Your task to perform on an android device: toggle location history Image 0: 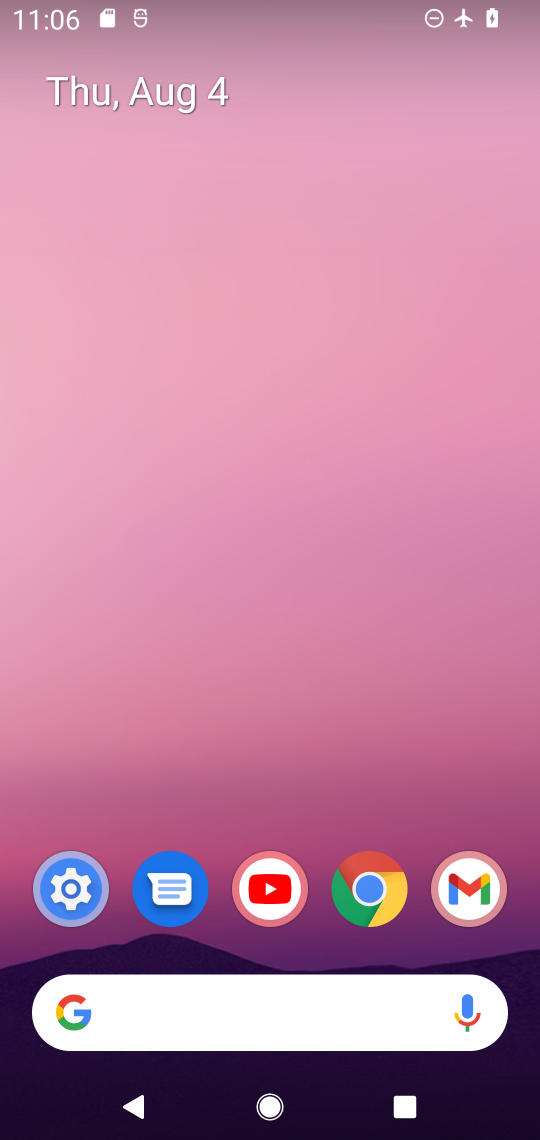
Step 0: press home button
Your task to perform on an android device: toggle location history Image 1: 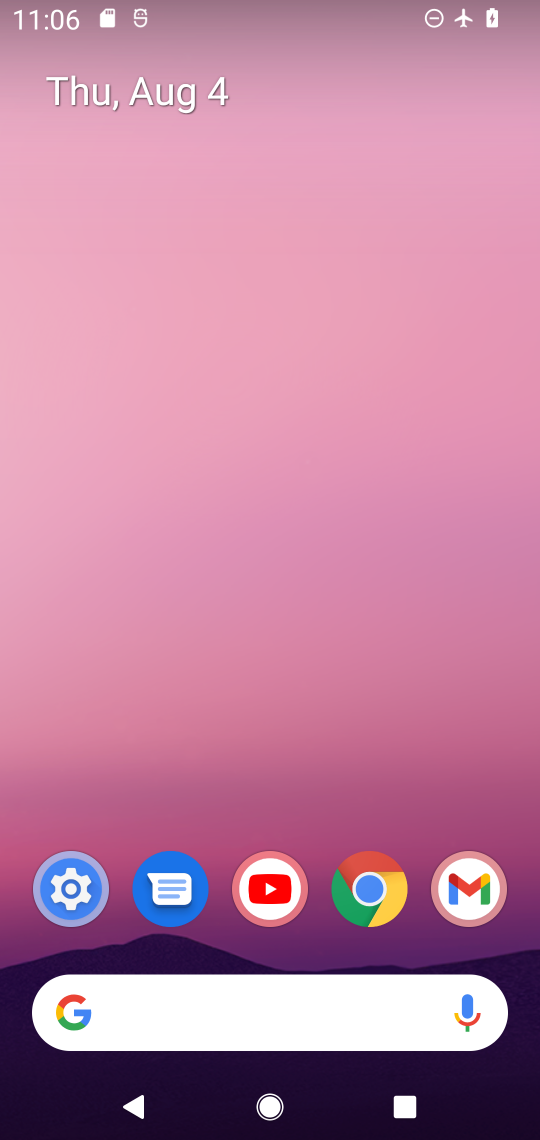
Step 1: drag from (424, 772) to (413, 192)
Your task to perform on an android device: toggle location history Image 2: 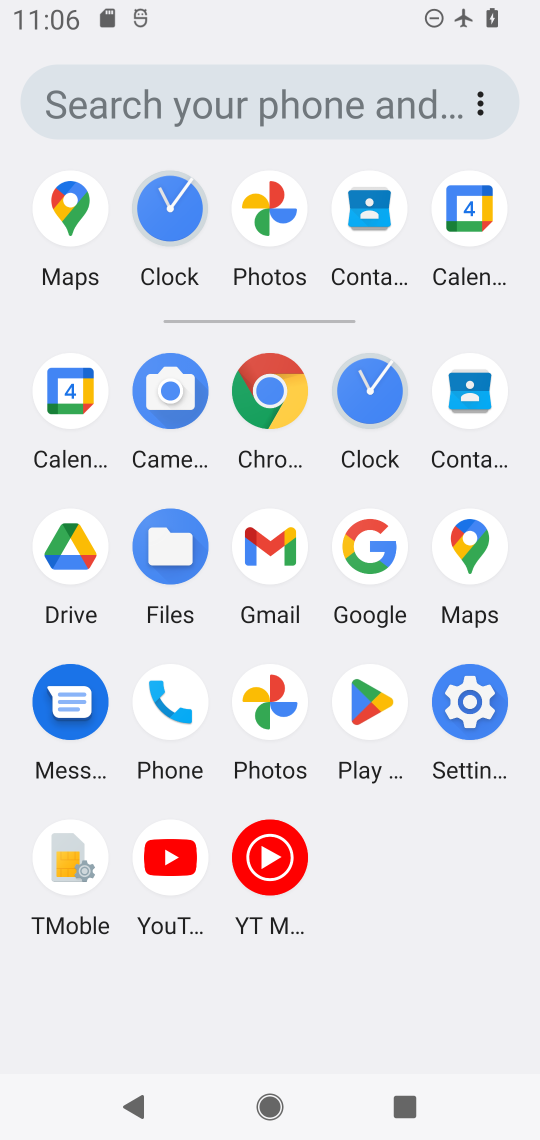
Step 2: click (469, 710)
Your task to perform on an android device: toggle location history Image 3: 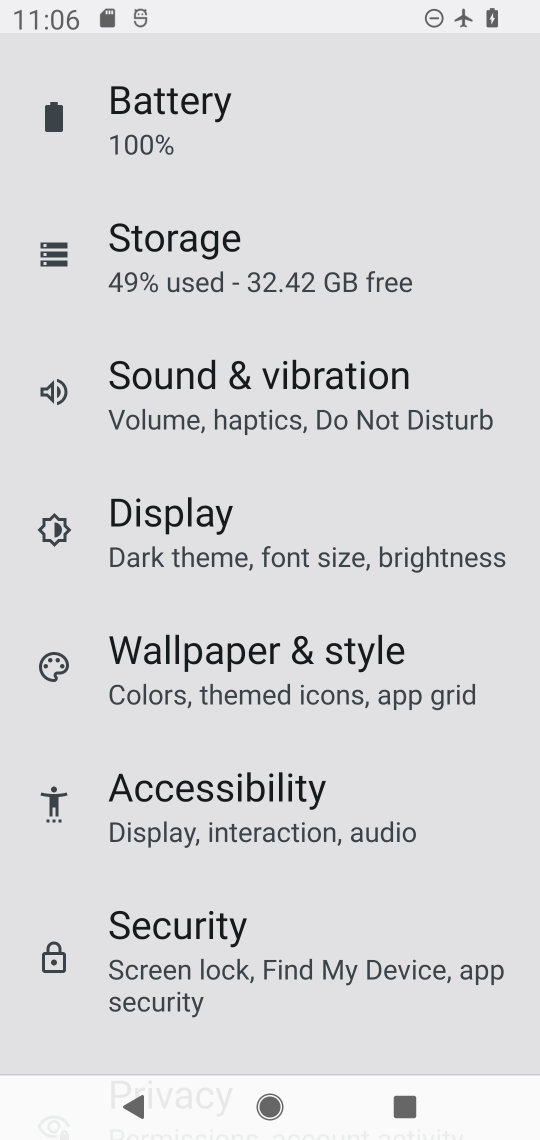
Step 3: drag from (469, 874) to (471, 655)
Your task to perform on an android device: toggle location history Image 4: 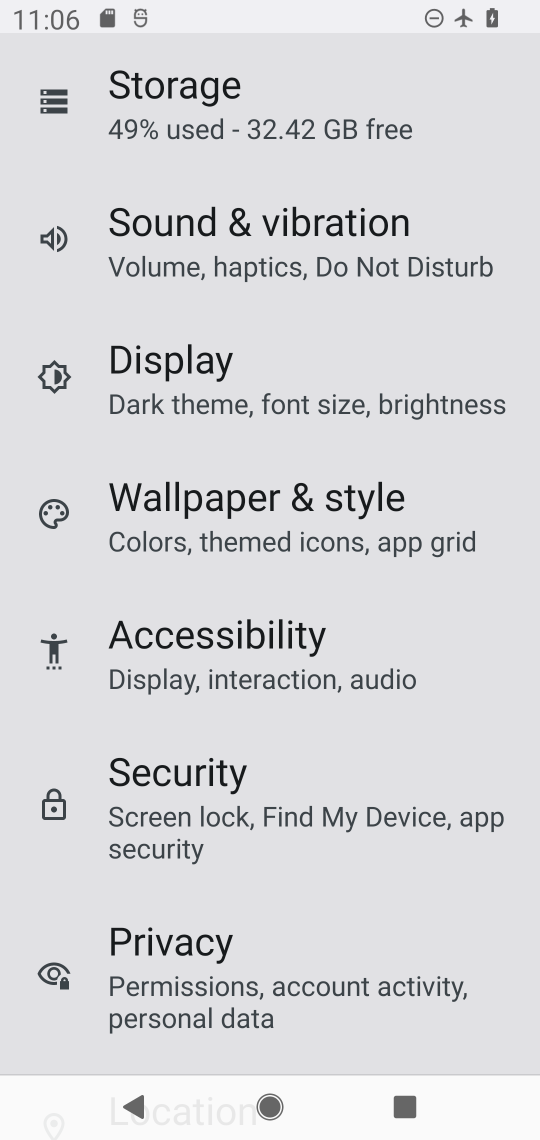
Step 4: drag from (441, 899) to (464, 616)
Your task to perform on an android device: toggle location history Image 5: 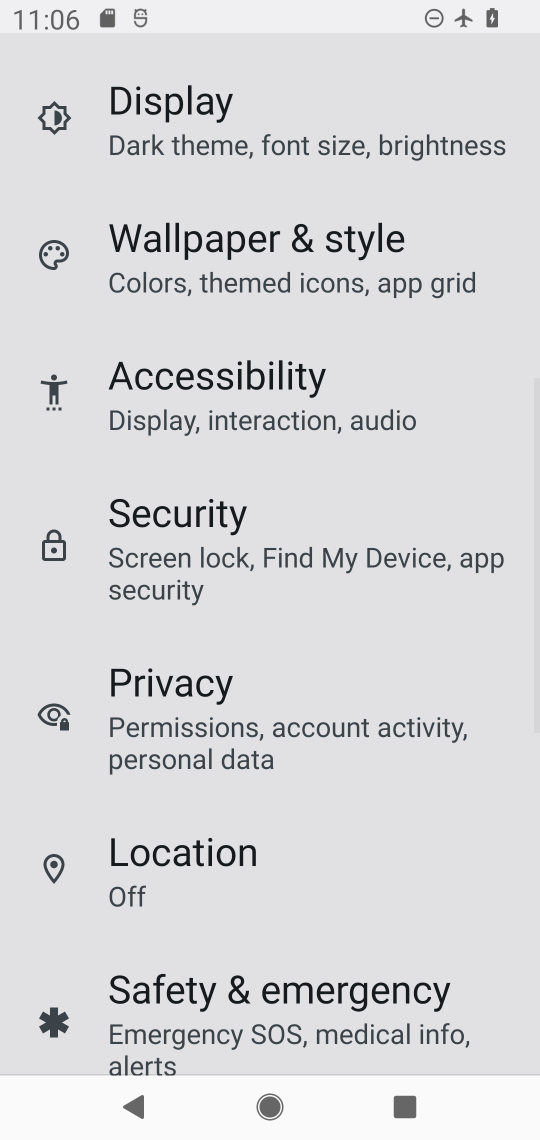
Step 5: drag from (461, 866) to (461, 638)
Your task to perform on an android device: toggle location history Image 6: 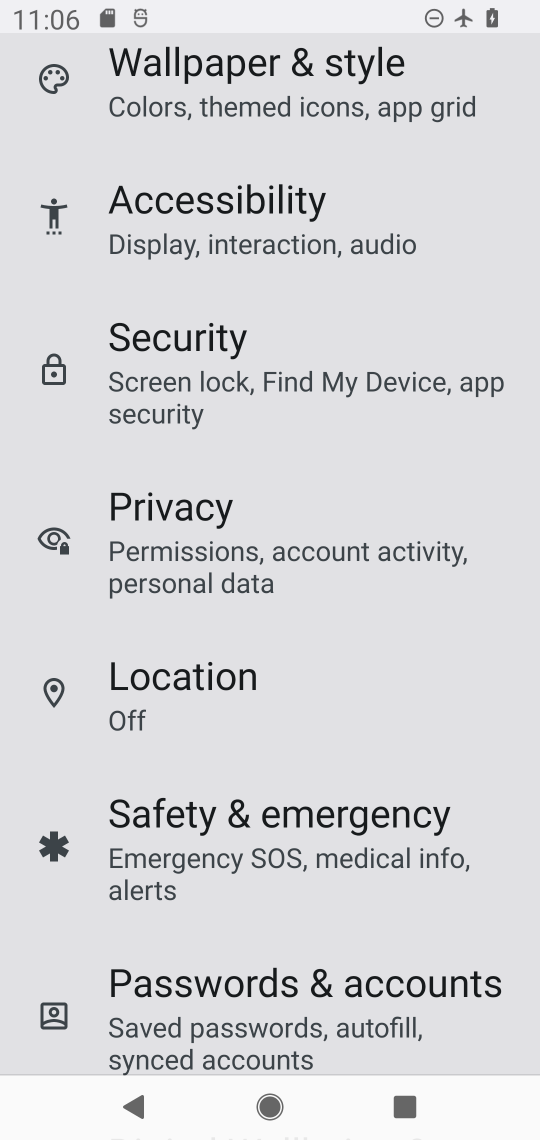
Step 6: click (296, 704)
Your task to perform on an android device: toggle location history Image 7: 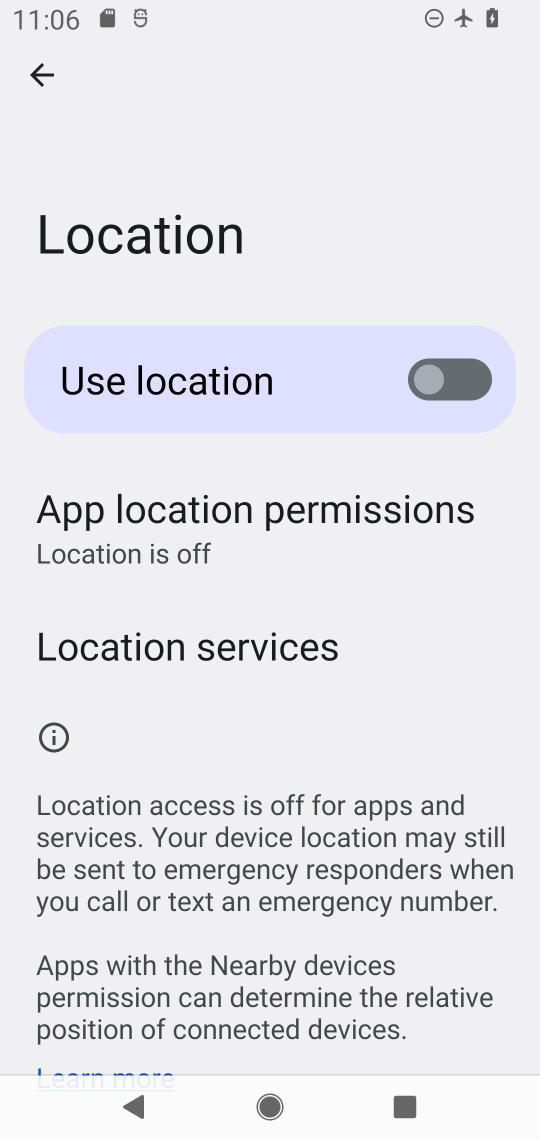
Step 7: click (299, 665)
Your task to perform on an android device: toggle location history Image 8: 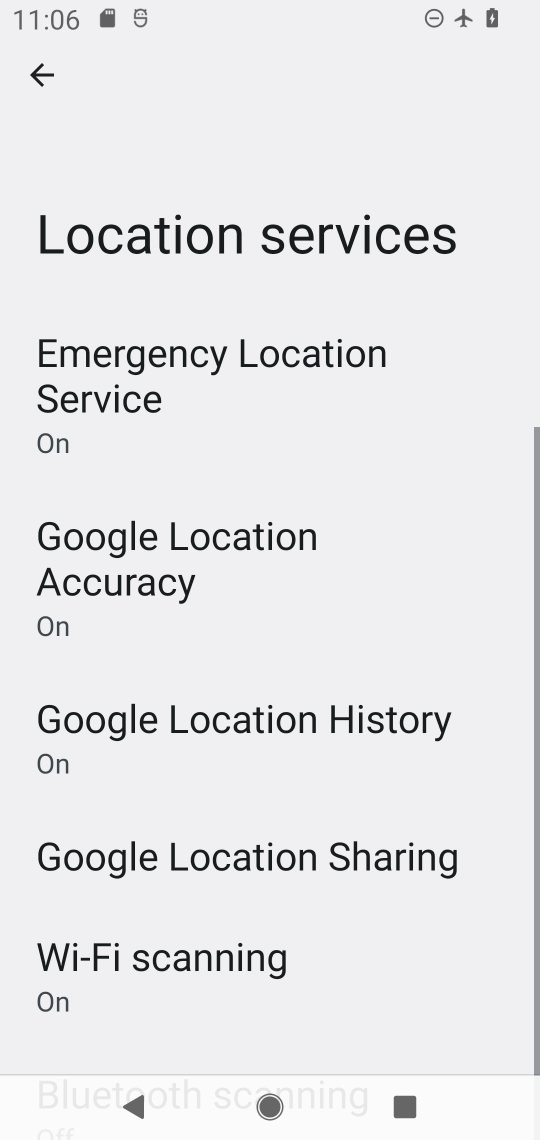
Step 8: drag from (349, 848) to (361, 644)
Your task to perform on an android device: toggle location history Image 9: 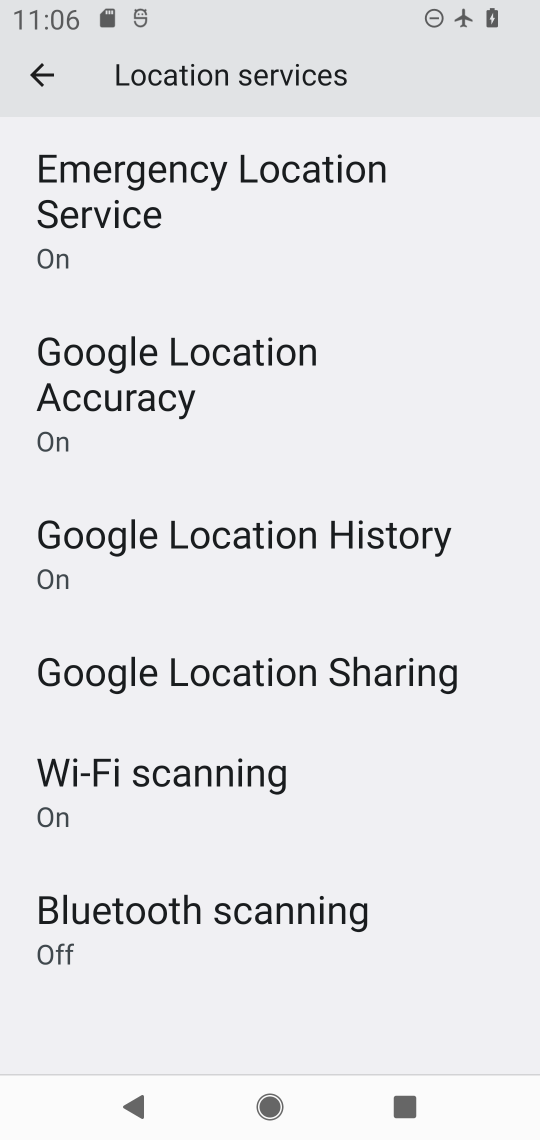
Step 9: drag from (437, 846) to (445, 659)
Your task to perform on an android device: toggle location history Image 10: 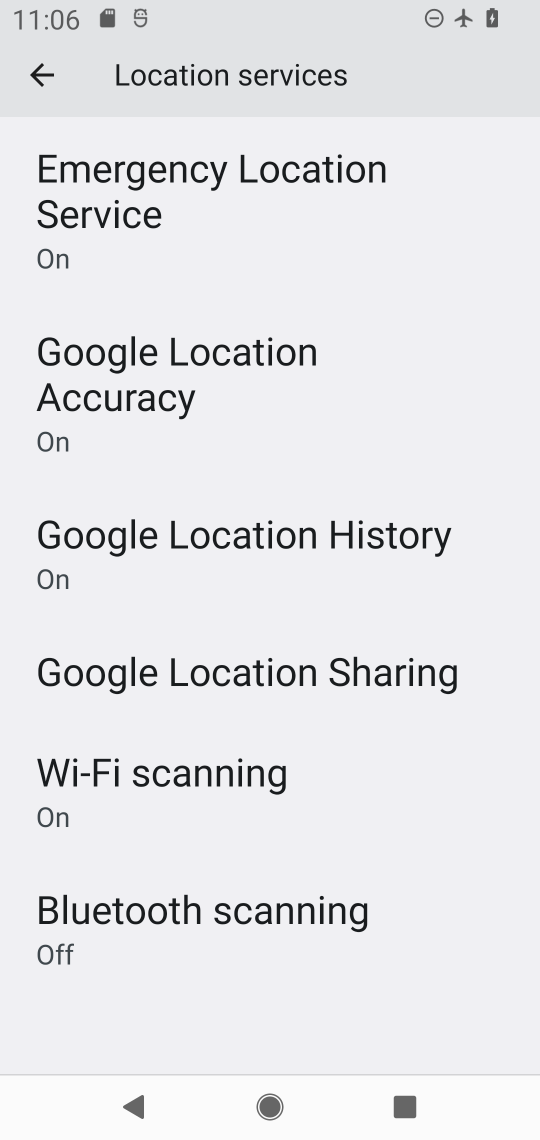
Step 10: click (313, 544)
Your task to perform on an android device: toggle location history Image 11: 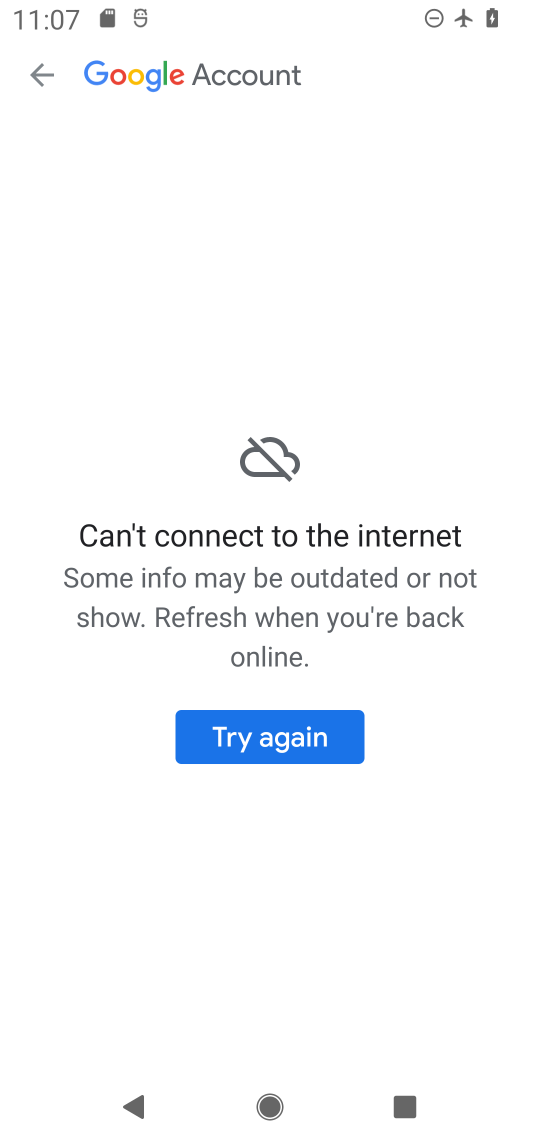
Step 11: task complete